Your task to perform on an android device: Find coffee shops on Maps Image 0: 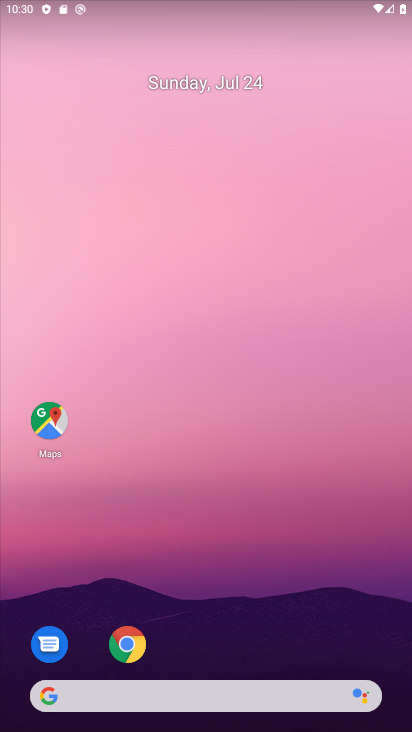
Step 0: drag from (211, 658) to (232, 235)
Your task to perform on an android device: Find coffee shops on Maps Image 1: 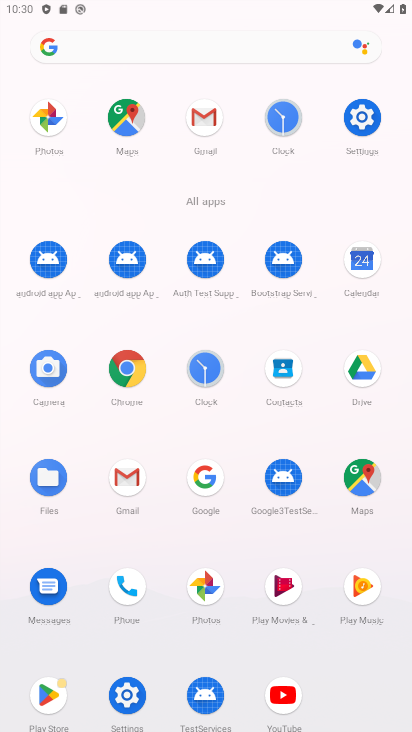
Step 1: click (356, 482)
Your task to perform on an android device: Find coffee shops on Maps Image 2: 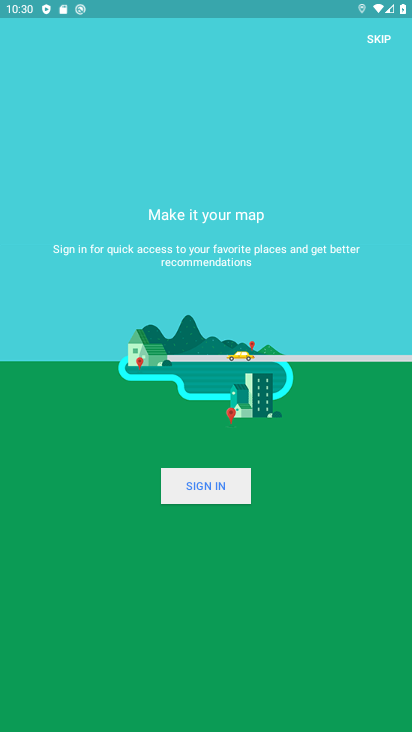
Step 2: click (216, 486)
Your task to perform on an android device: Find coffee shops on Maps Image 3: 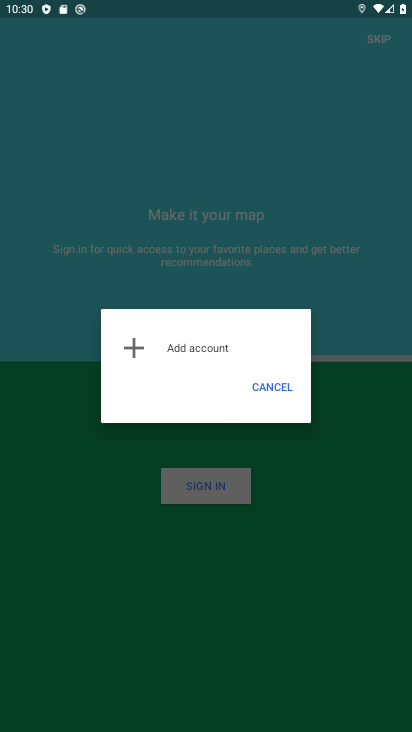
Step 3: task complete